Your task to perform on an android device: Open the calendar and show me this week's events? Image 0: 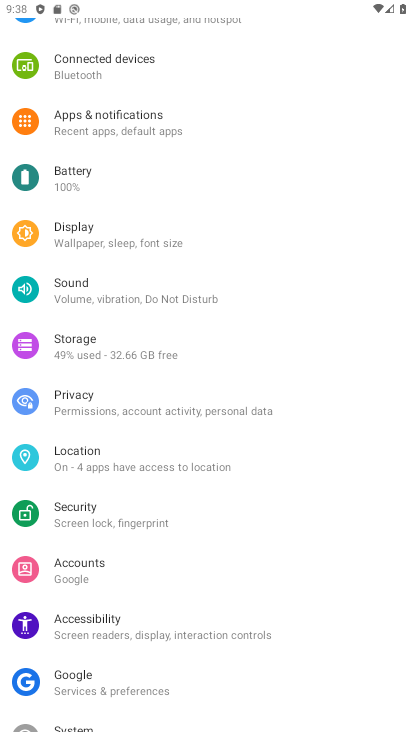
Step 0: press home button
Your task to perform on an android device: Open the calendar and show me this week's events? Image 1: 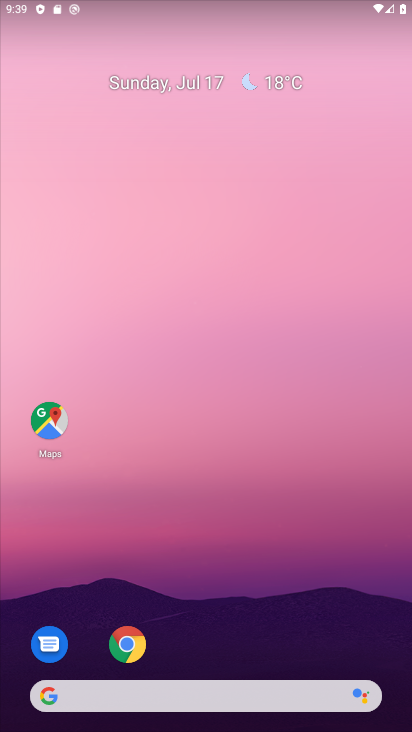
Step 1: drag from (406, 707) to (384, 150)
Your task to perform on an android device: Open the calendar and show me this week's events? Image 2: 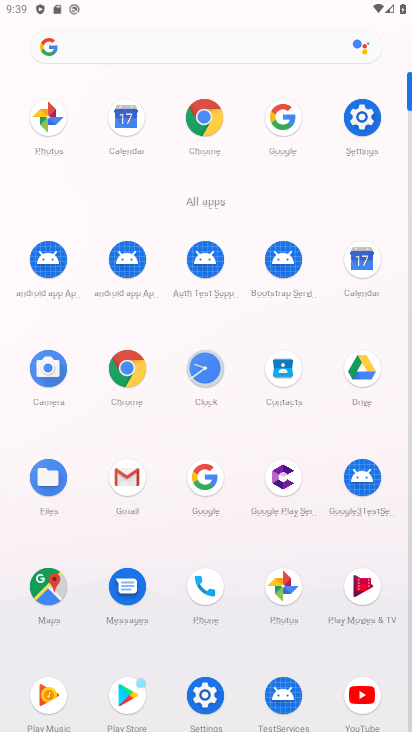
Step 2: click (367, 247)
Your task to perform on an android device: Open the calendar and show me this week's events? Image 3: 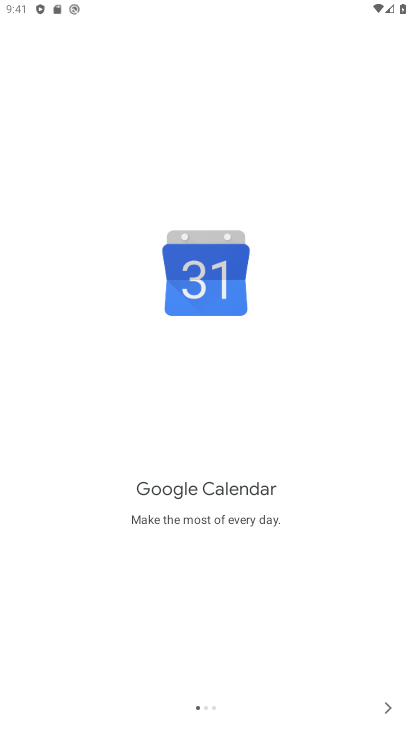
Step 3: click (383, 702)
Your task to perform on an android device: Open the calendar and show me this week's events? Image 4: 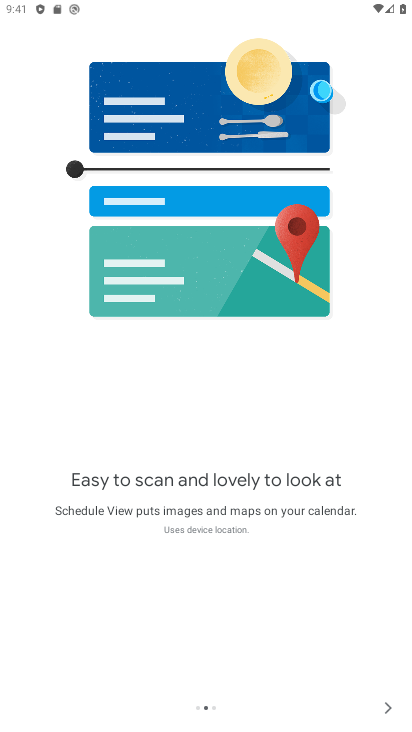
Step 4: click (383, 702)
Your task to perform on an android device: Open the calendar and show me this week's events? Image 5: 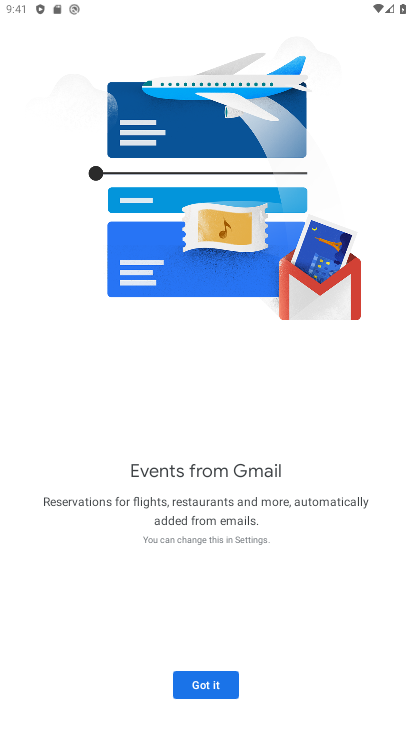
Step 5: click (383, 702)
Your task to perform on an android device: Open the calendar and show me this week's events? Image 6: 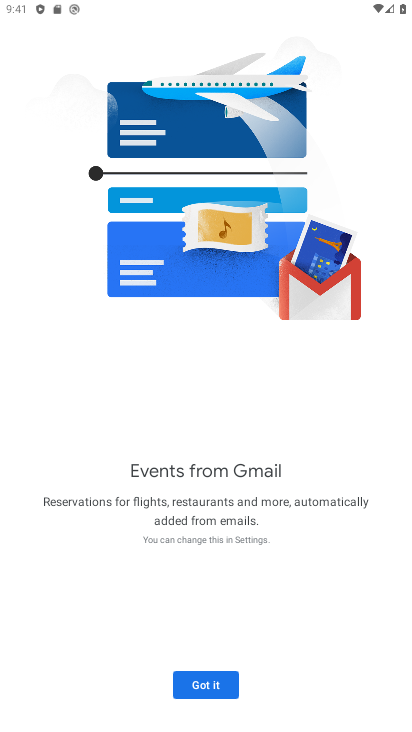
Step 6: click (203, 684)
Your task to perform on an android device: Open the calendar and show me this week's events? Image 7: 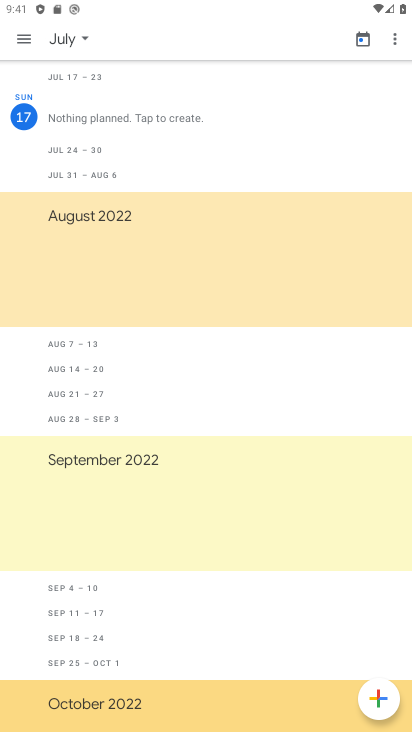
Step 7: click (83, 36)
Your task to perform on an android device: Open the calendar and show me this week's events? Image 8: 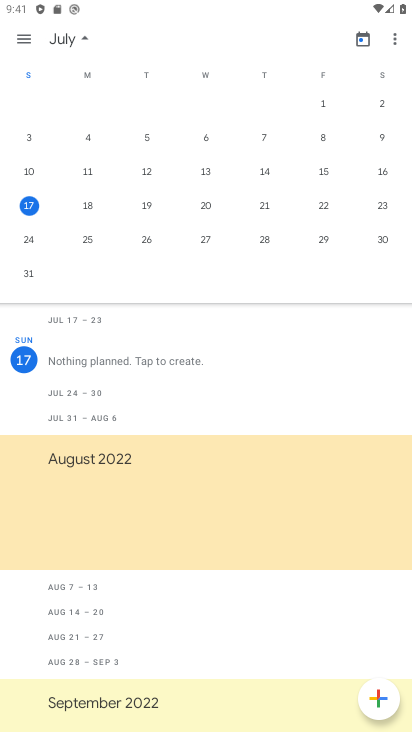
Step 8: click (85, 201)
Your task to perform on an android device: Open the calendar and show me this week's events? Image 9: 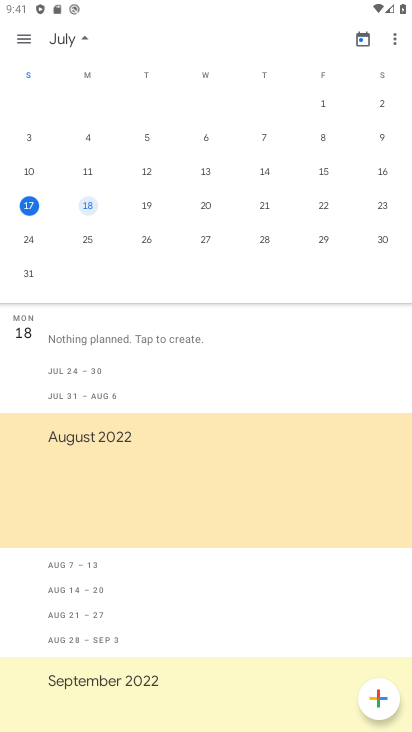
Step 9: click (26, 41)
Your task to perform on an android device: Open the calendar and show me this week's events? Image 10: 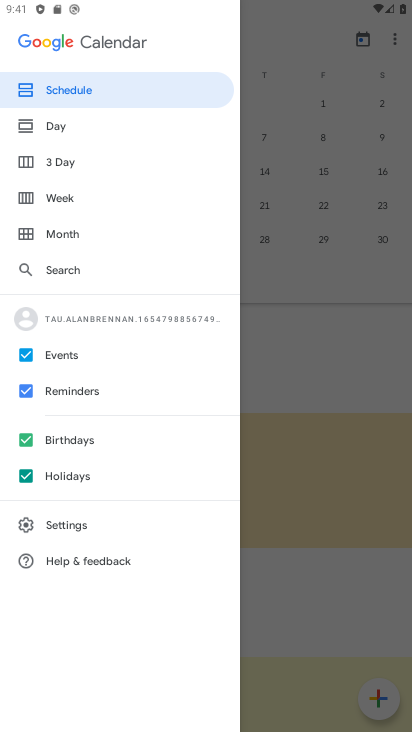
Step 10: click (69, 192)
Your task to perform on an android device: Open the calendar and show me this week's events? Image 11: 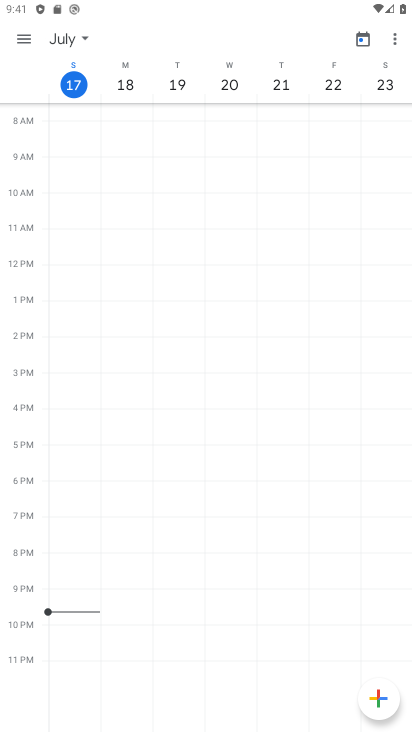
Step 11: click (23, 38)
Your task to perform on an android device: Open the calendar and show me this week's events? Image 12: 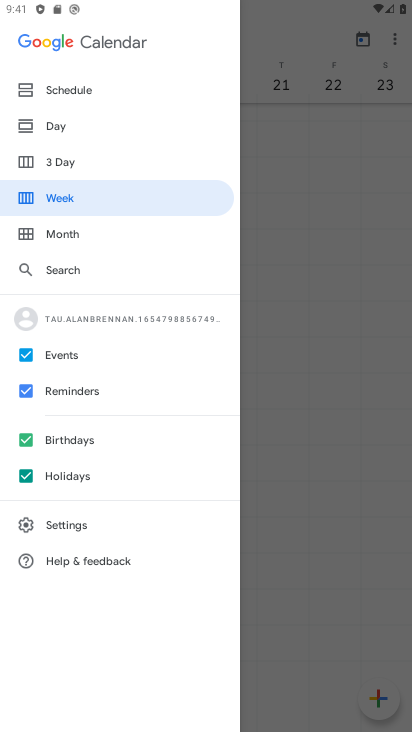
Step 12: click (57, 354)
Your task to perform on an android device: Open the calendar and show me this week's events? Image 13: 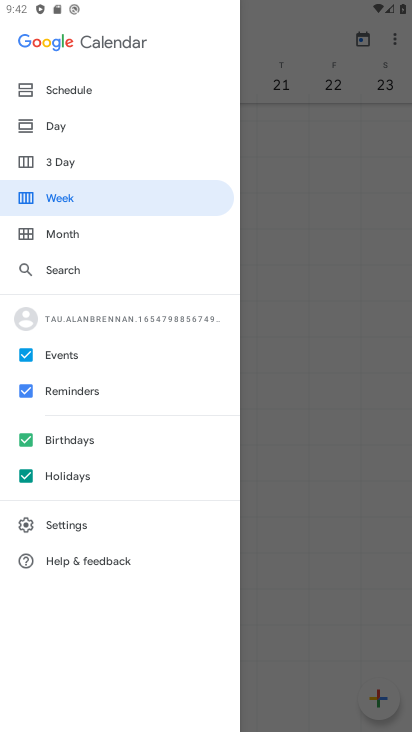
Step 13: click (80, 84)
Your task to perform on an android device: Open the calendar and show me this week's events? Image 14: 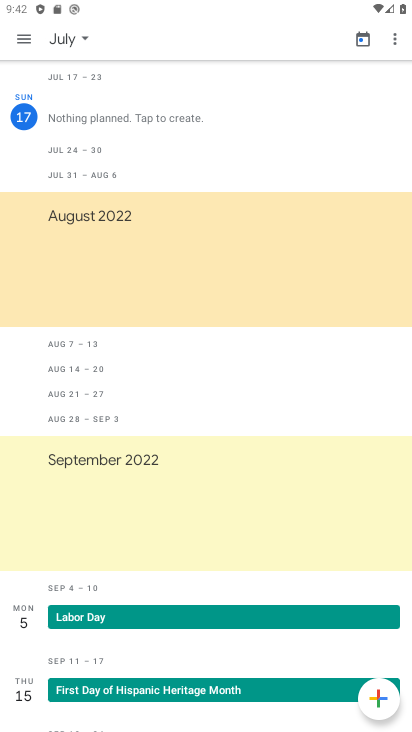
Step 14: task complete